Your task to perform on an android device: open app "YouTube Kids" (install if not already installed) Image 0: 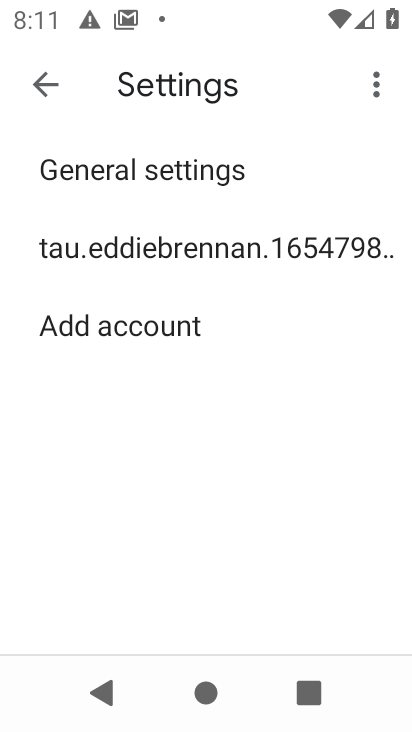
Step 0: press home button
Your task to perform on an android device: open app "YouTube Kids" (install if not already installed) Image 1: 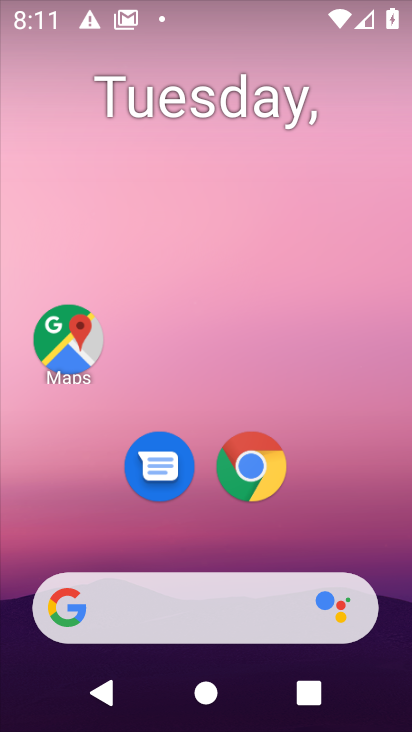
Step 1: drag from (187, 550) to (242, 16)
Your task to perform on an android device: open app "YouTube Kids" (install if not already installed) Image 2: 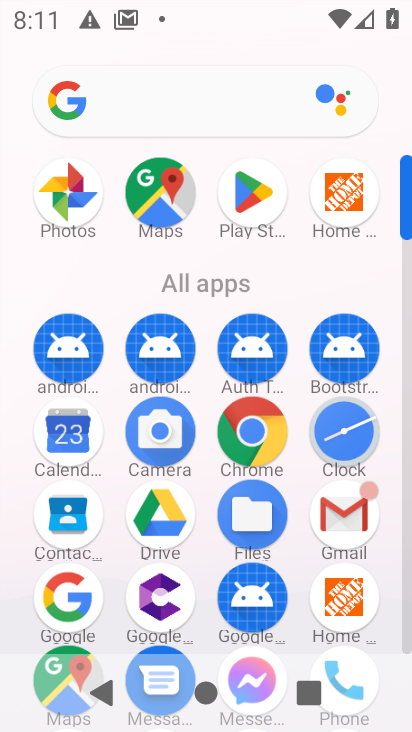
Step 2: click (252, 193)
Your task to perform on an android device: open app "YouTube Kids" (install if not already installed) Image 3: 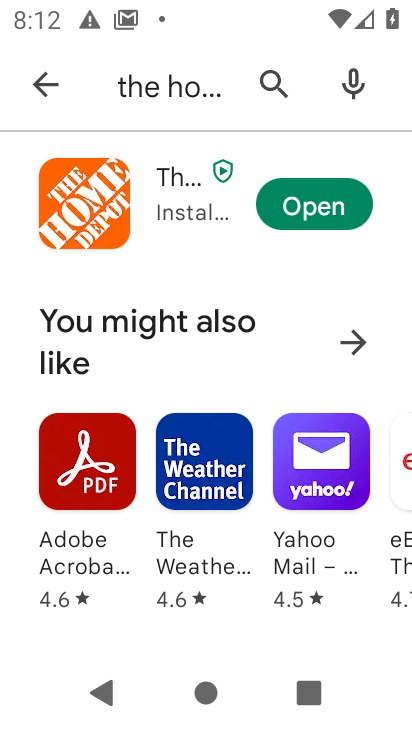
Step 3: click (290, 91)
Your task to perform on an android device: open app "YouTube Kids" (install if not already installed) Image 4: 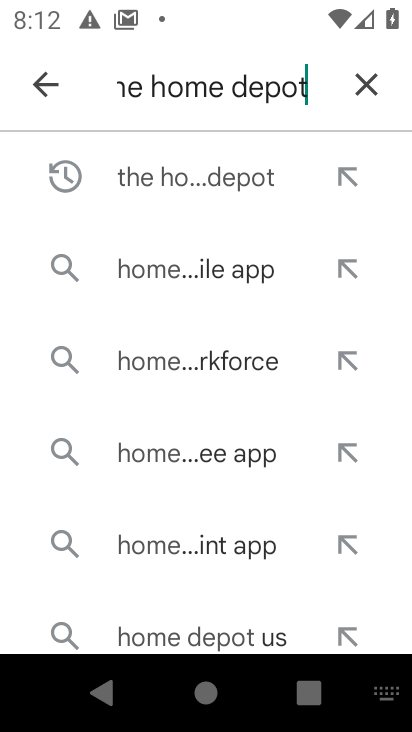
Step 4: click (376, 89)
Your task to perform on an android device: open app "YouTube Kids" (install if not already installed) Image 5: 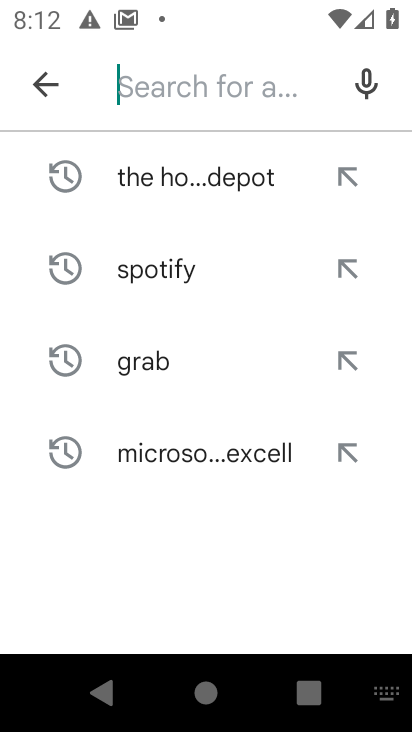
Step 5: click (181, 108)
Your task to perform on an android device: open app "YouTube Kids" (install if not already installed) Image 6: 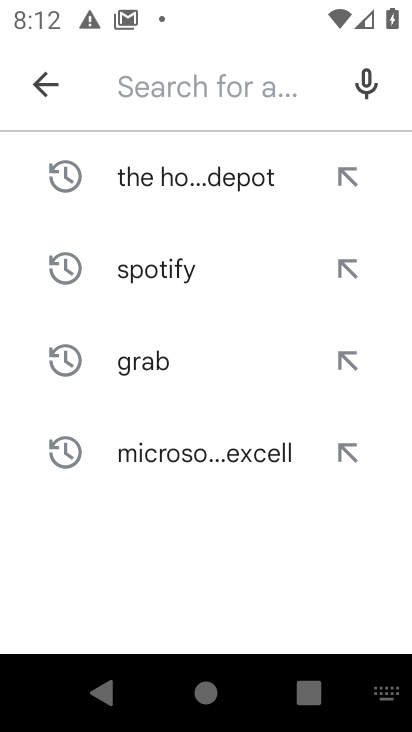
Step 6: type "YouTube Kid"
Your task to perform on an android device: open app "YouTube Kids" (install if not already installed) Image 7: 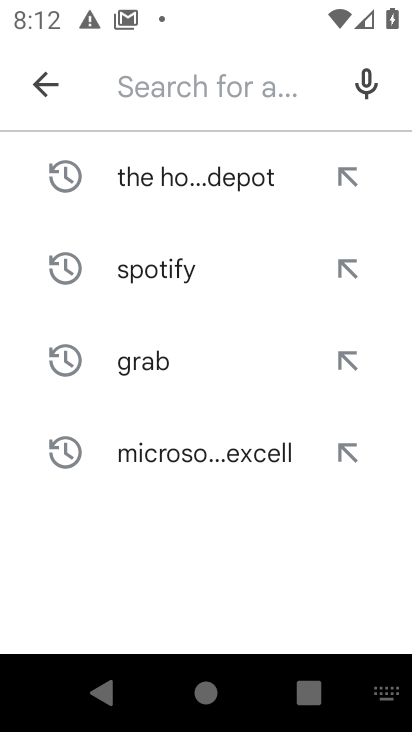
Step 7: click (264, 551)
Your task to perform on an android device: open app "YouTube Kids" (install if not already installed) Image 8: 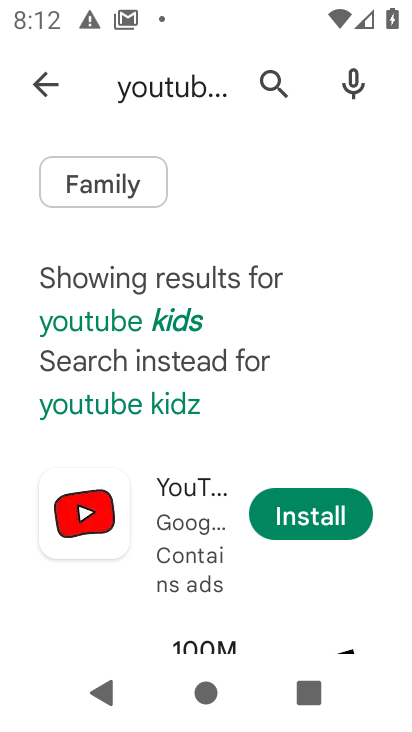
Step 8: click (316, 515)
Your task to perform on an android device: open app "YouTube Kids" (install if not already installed) Image 9: 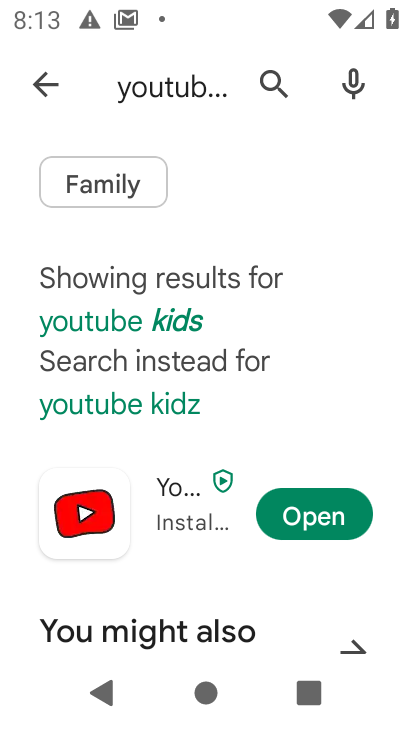
Step 9: click (349, 521)
Your task to perform on an android device: open app "YouTube Kids" (install if not already installed) Image 10: 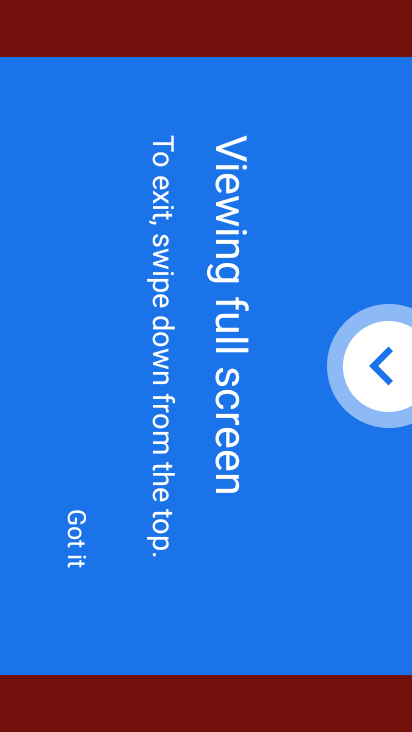
Step 10: task complete